Your task to perform on an android device: What's the weather going to be tomorrow? Image 0: 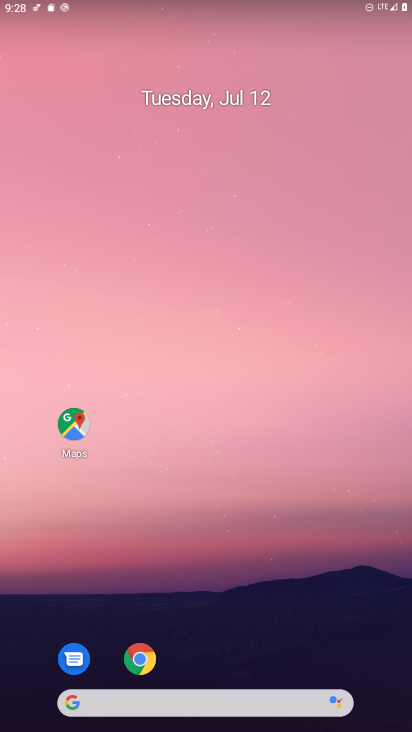
Step 0: drag from (173, 701) to (233, 235)
Your task to perform on an android device: What's the weather going to be tomorrow? Image 1: 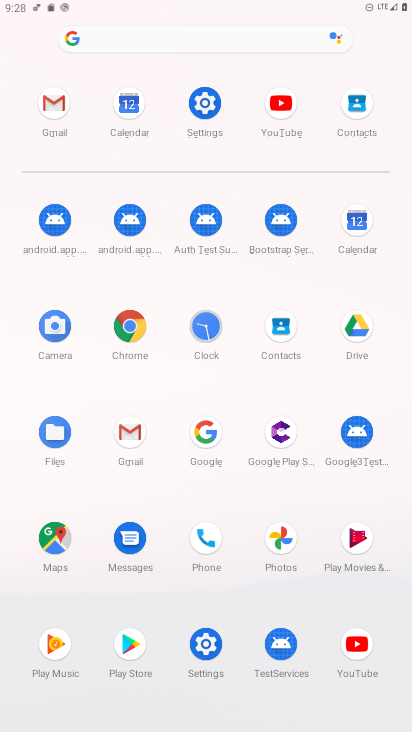
Step 1: click (203, 432)
Your task to perform on an android device: What's the weather going to be tomorrow? Image 2: 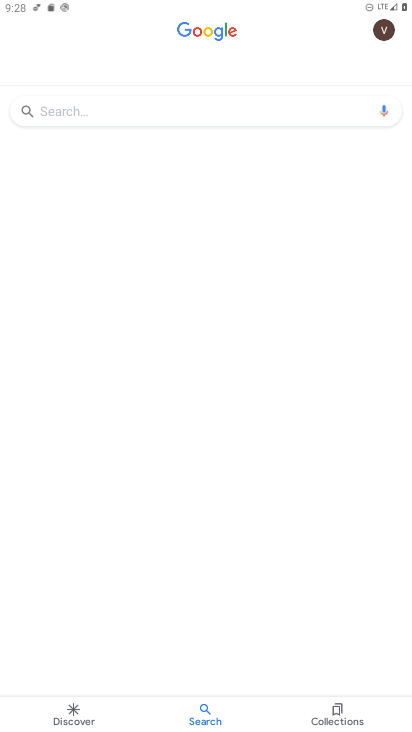
Step 2: click (190, 118)
Your task to perform on an android device: What's the weather going to be tomorrow? Image 3: 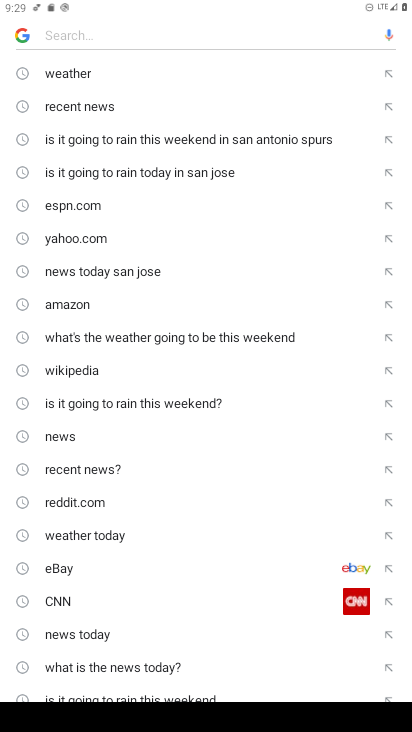
Step 3: type "What's the weather going to be tomorrow?"
Your task to perform on an android device: What's the weather going to be tomorrow? Image 4: 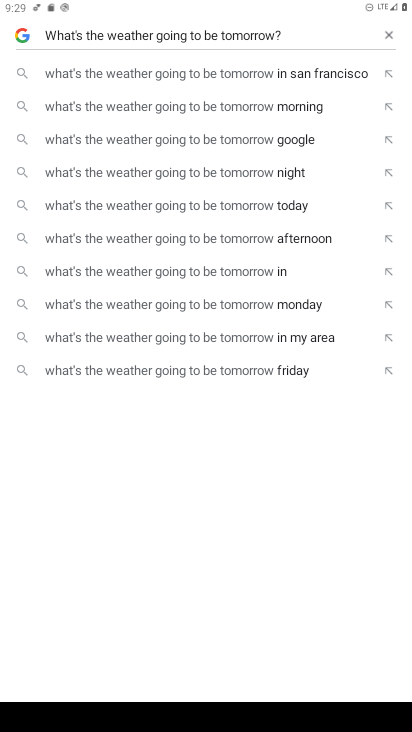
Step 4: click (179, 82)
Your task to perform on an android device: What's the weather going to be tomorrow? Image 5: 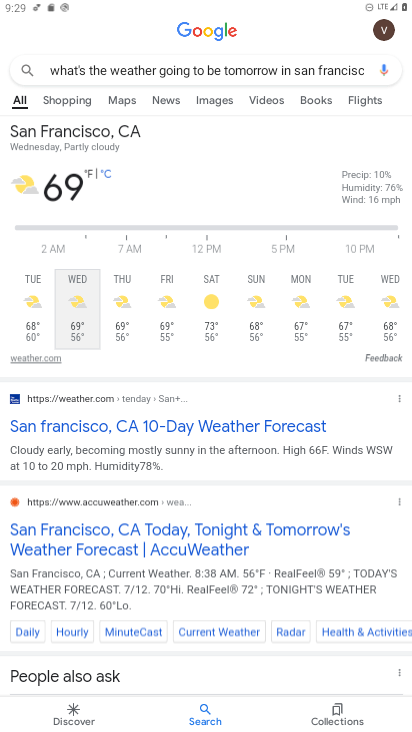
Step 5: task complete